Your task to perform on an android device: What is the news today? Image 0: 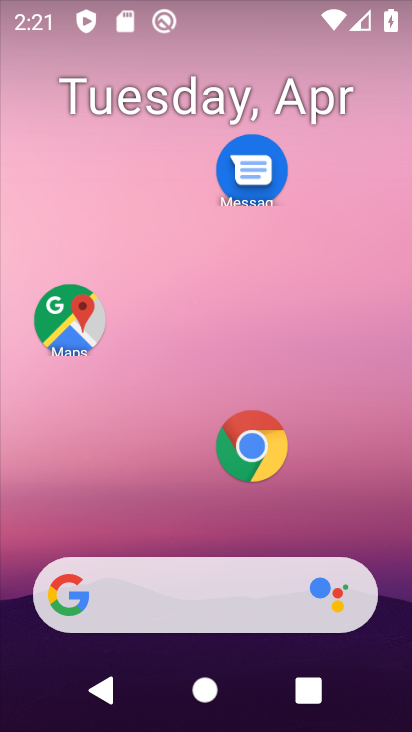
Step 0: click (182, 583)
Your task to perform on an android device: What is the news today? Image 1: 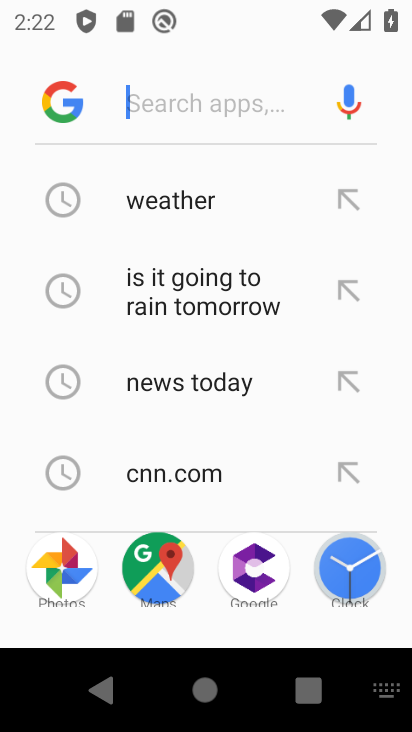
Step 1: type "news"
Your task to perform on an android device: What is the news today? Image 2: 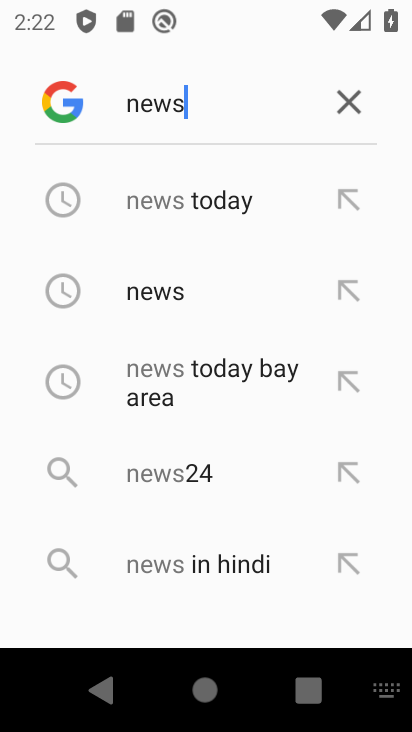
Step 2: click (165, 205)
Your task to perform on an android device: What is the news today? Image 3: 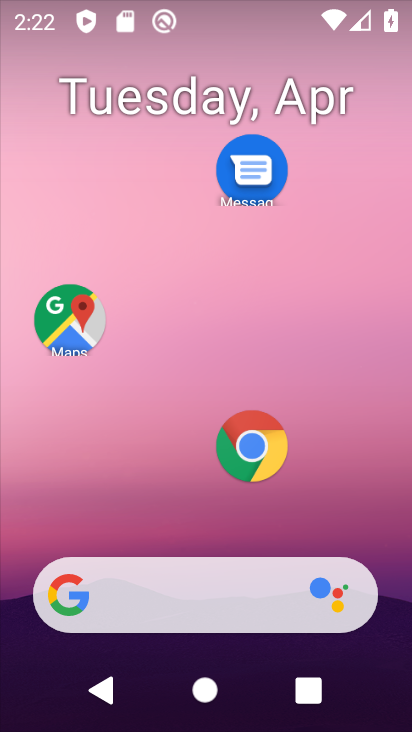
Step 3: task complete